Your task to perform on an android device: Go to settings Image 0: 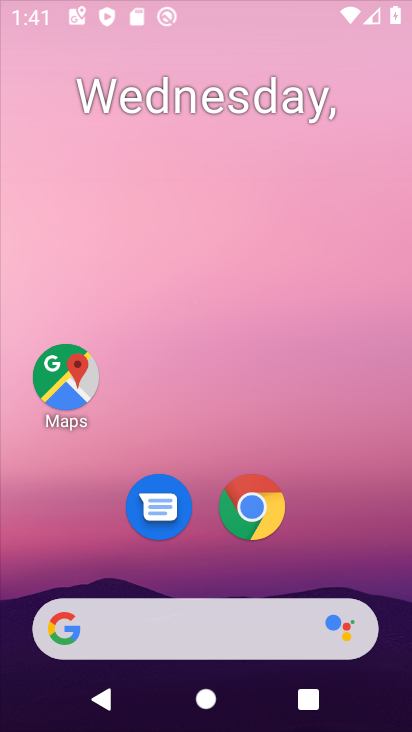
Step 0: drag from (346, 547) to (351, 236)
Your task to perform on an android device: Go to settings Image 1: 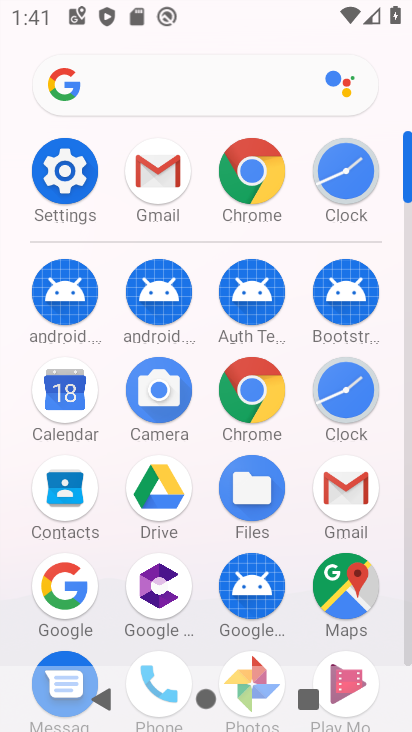
Step 1: click (77, 180)
Your task to perform on an android device: Go to settings Image 2: 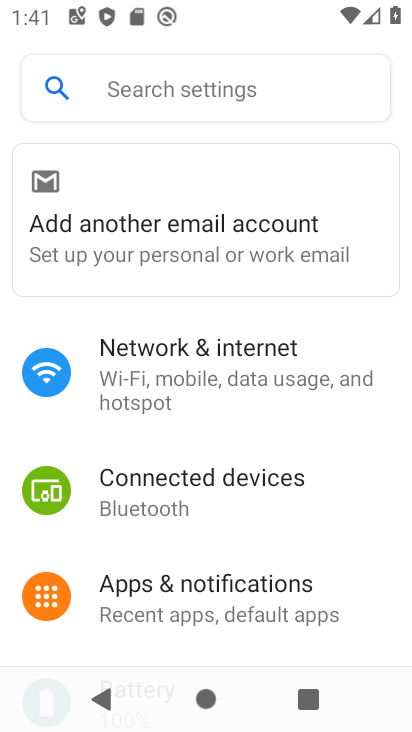
Step 2: task complete